Your task to perform on an android device: check out phone information Image 0: 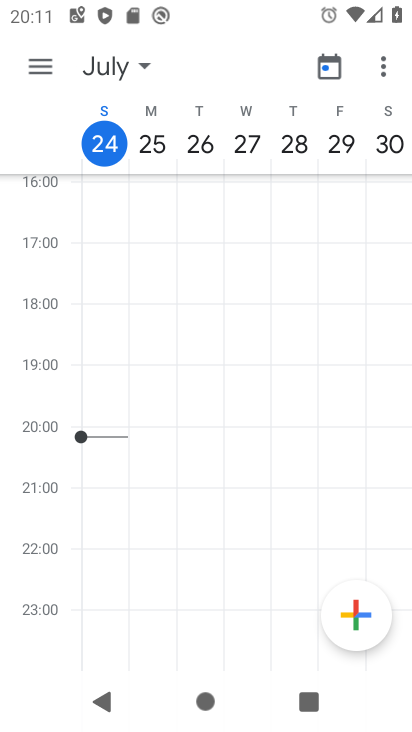
Step 0: press home button
Your task to perform on an android device: check out phone information Image 1: 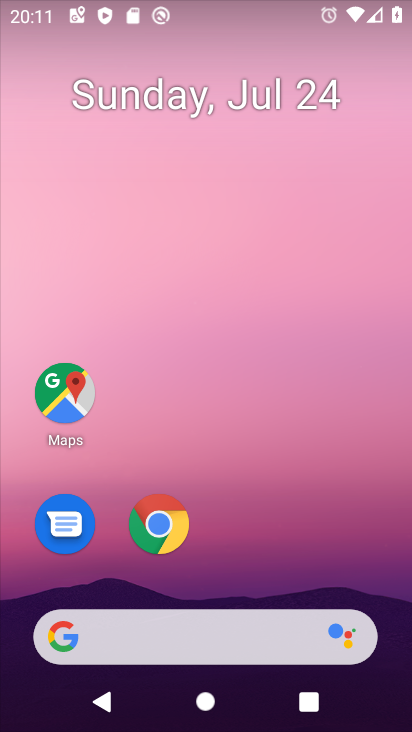
Step 1: drag from (246, 561) to (249, 1)
Your task to perform on an android device: check out phone information Image 2: 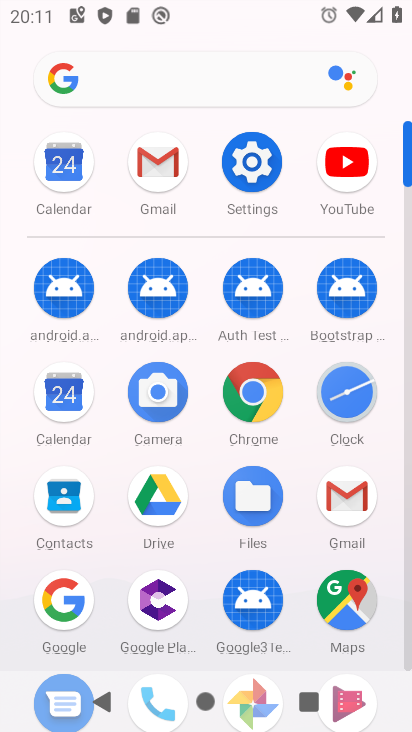
Step 2: drag from (202, 523) to (221, 144)
Your task to perform on an android device: check out phone information Image 3: 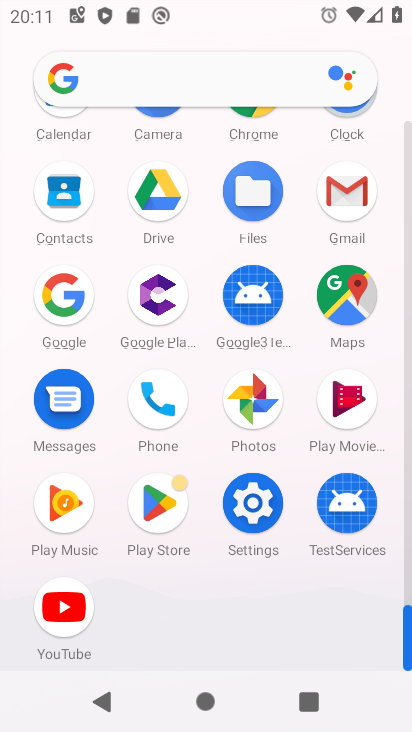
Step 3: click (168, 397)
Your task to perform on an android device: check out phone information Image 4: 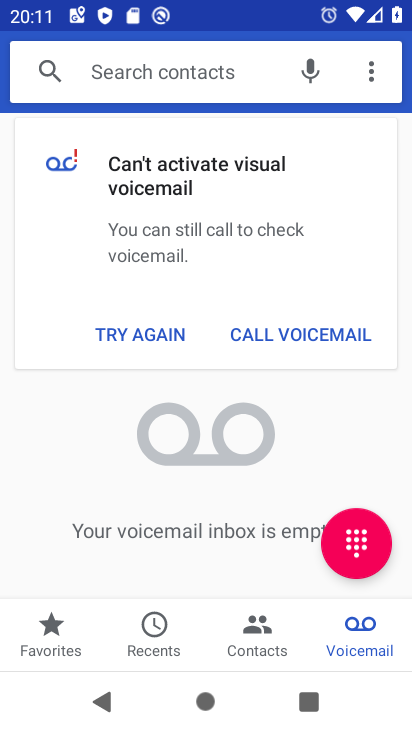
Step 4: click (372, 81)
Your task to perform on an android device: check out phone information Image 5: 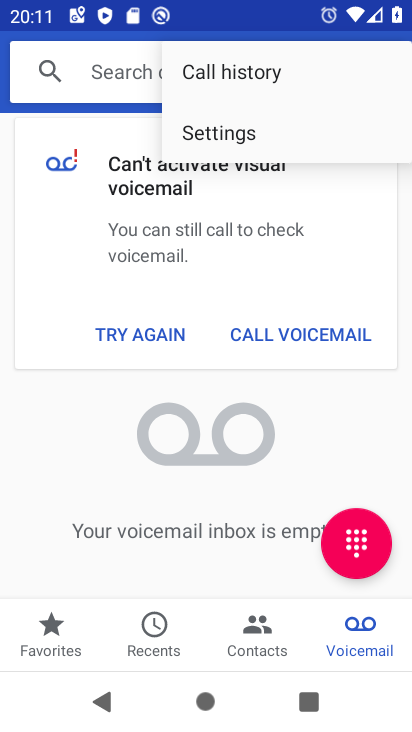
Step 5: click (242, 135)
Your task to perform on an android device: check out phone information Image 6: 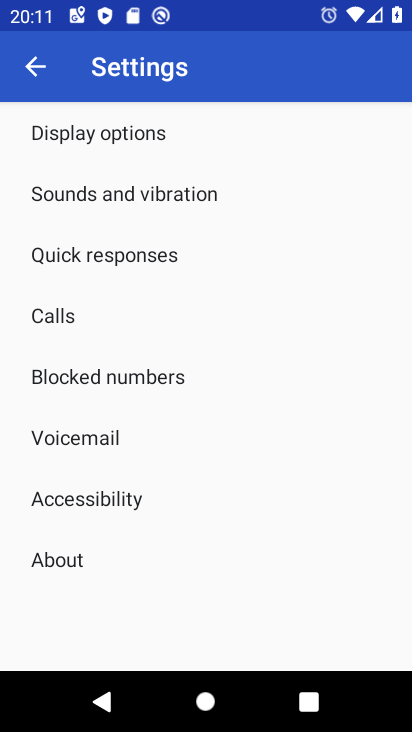
Step 6: click (76, 566)
Your task to perform on an android device: check out phone information Image 7: 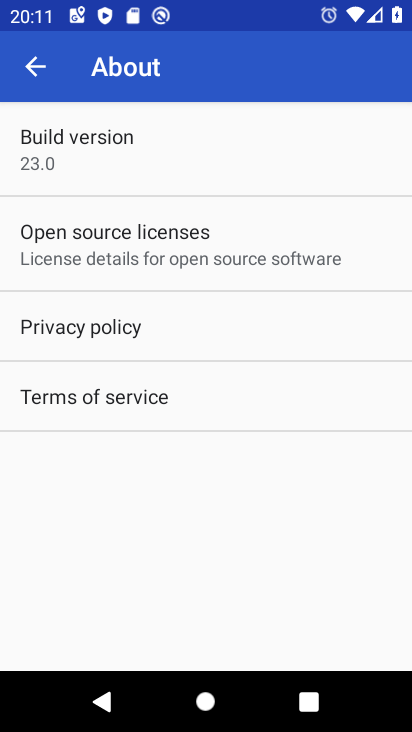
Step 7: task complete